Your task to perform on an android device: check battery use Image 0: 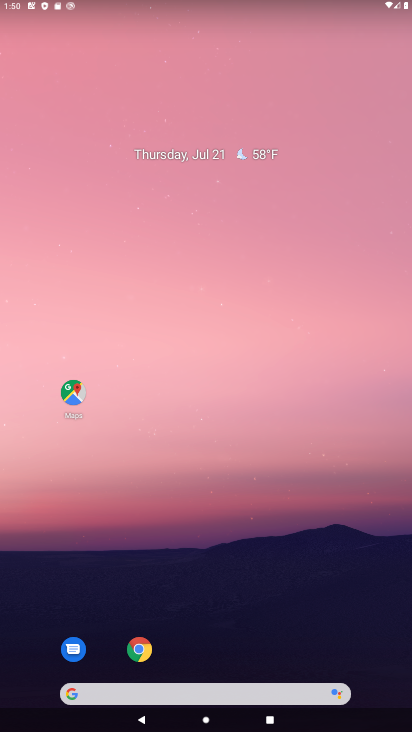
Step 0: drag from (321, 661) to (253, 128)
Your task to perform on an android device: check battery use Image 1: 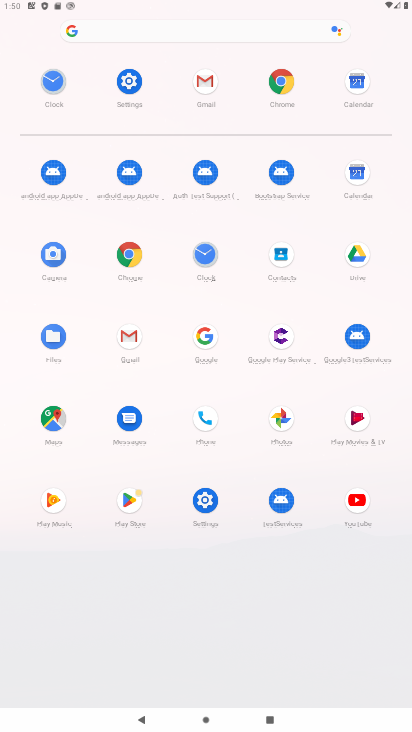
Step 1: click (121, 75)
Your task to perform on an android device: check battery use Image 2: 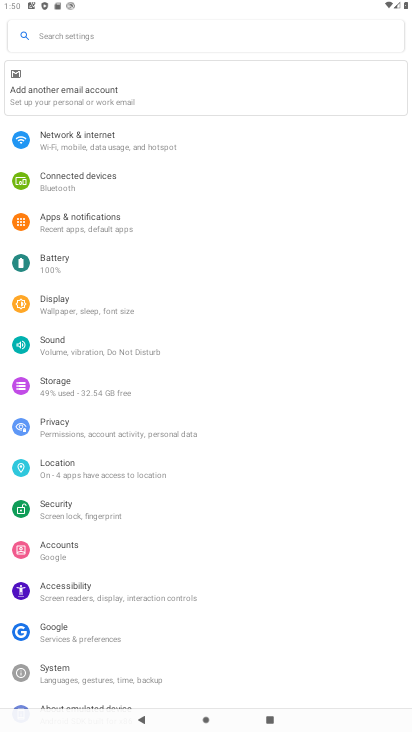
Step 2: click (101, 273)
Your task to perform on an android device: check battery use Image 3: 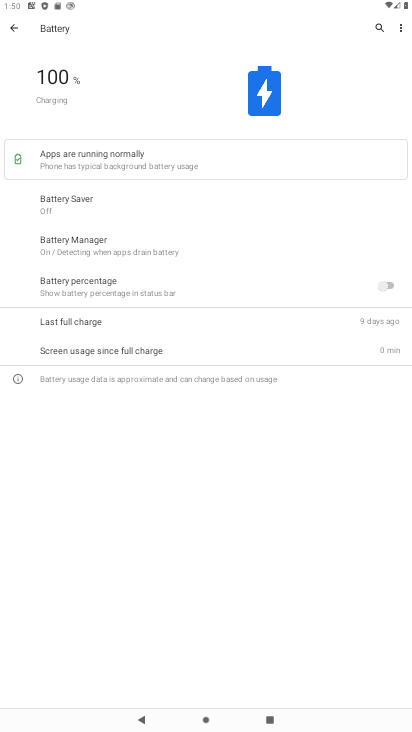
Step 3: task complete